Your task to perform on an android device: Open eBay Image 0: 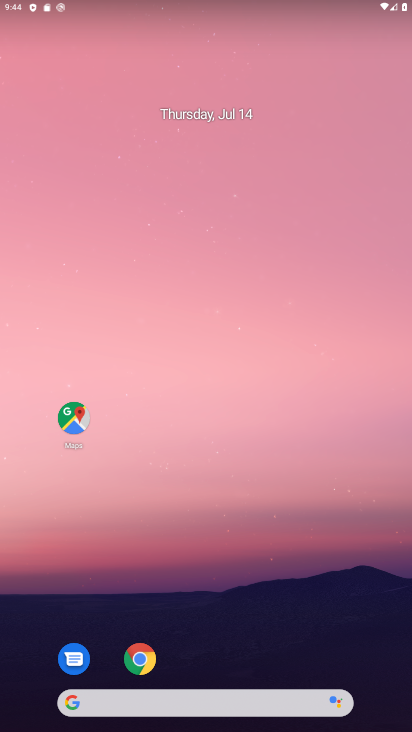
Step 0: drag from (218, 693) to (310, 58)
Your task to perform on an android device: Open eBay Image 1: 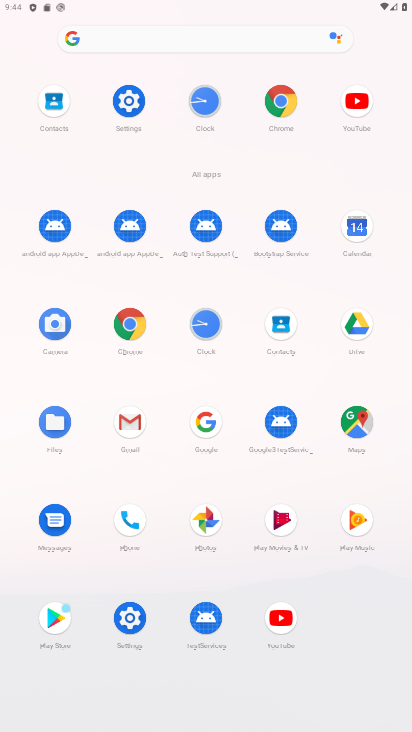
Step 1: click (137, 333)
Your task to perform on an android device: Open eBay Image 2: 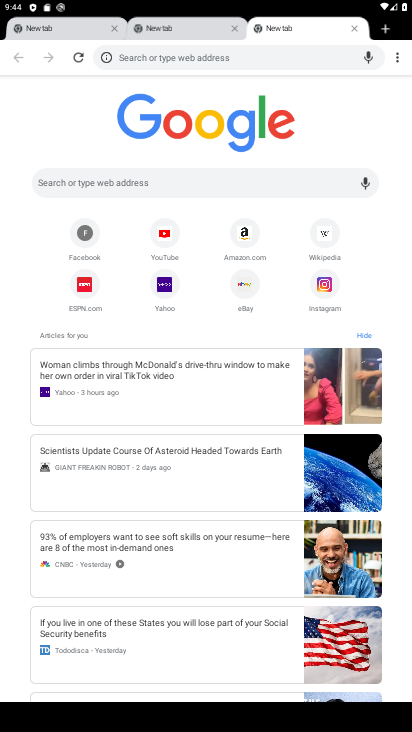
Step 2: click (243, 294)
Your task to perform on an android device: Open eBay Image 3: 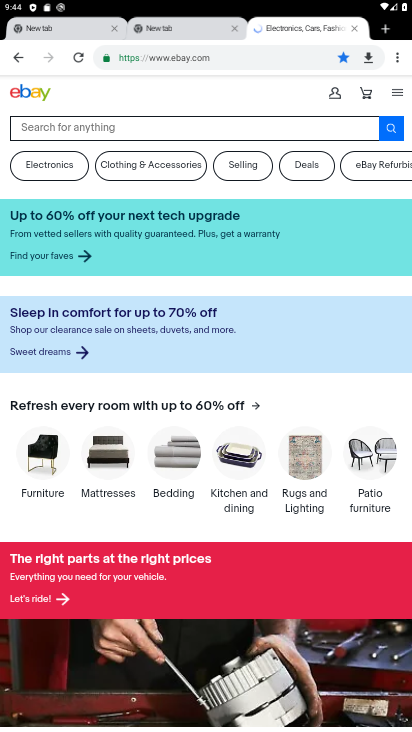
Step 3: task complete